Your task to perform on an android device: open a new tab in the chrome app Image 0: 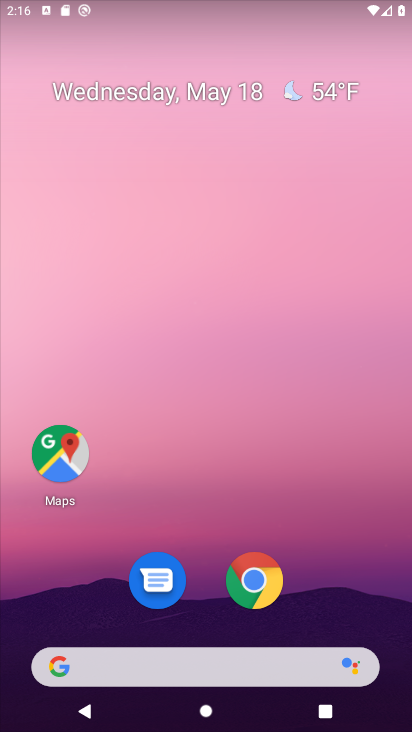
Step 0: click (219, 196)
Your task to perform on an android device: open a new tab in the chrome app Image 1: 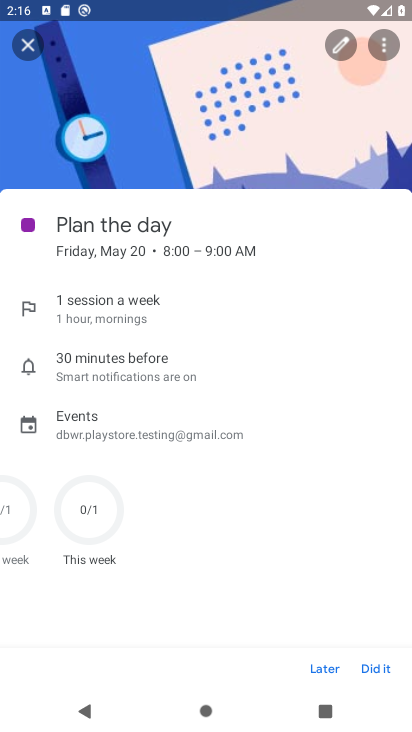
Step 1: press home button
Your task to perform on an android device: open a new tab in the chrome app Image 2: 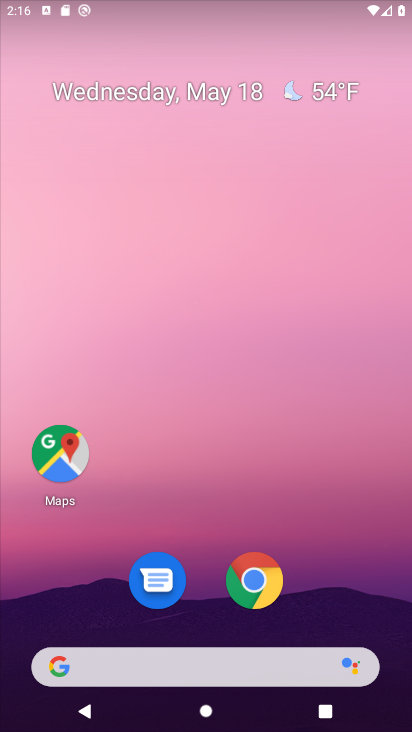
Step 2: drag from (207, 635) to (211, 51)
Your task to perform on an android device: open a new tab in the chrome app Image 3: 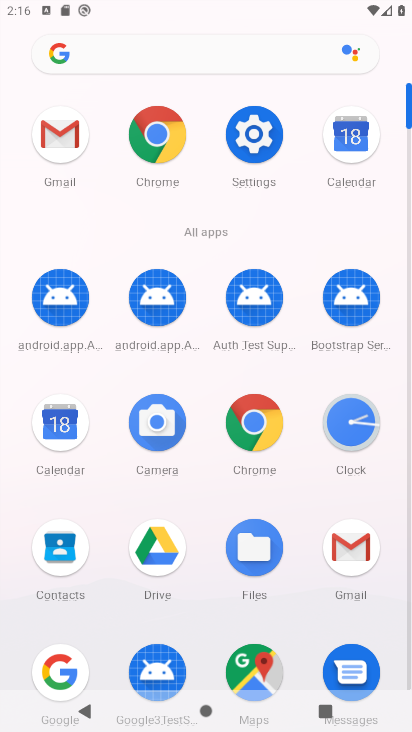
Step 3: click (261, 428)
Your task to perform on an android device: open a new tab in the chrome app Image 4: 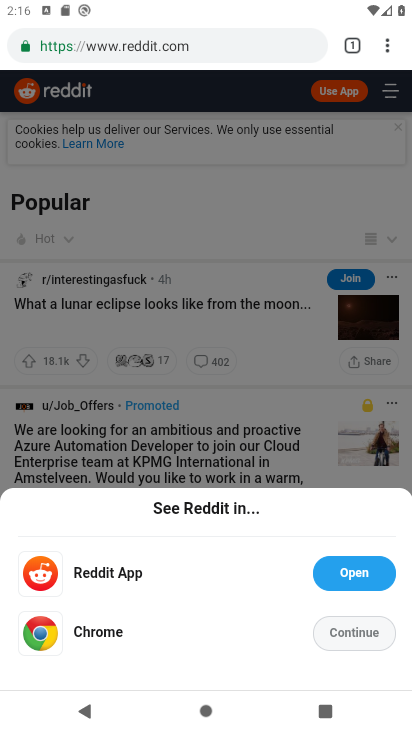
Step 4: click (353, 46)
Your task to perform on an android device: open a new tab in the chrome app Image 5: 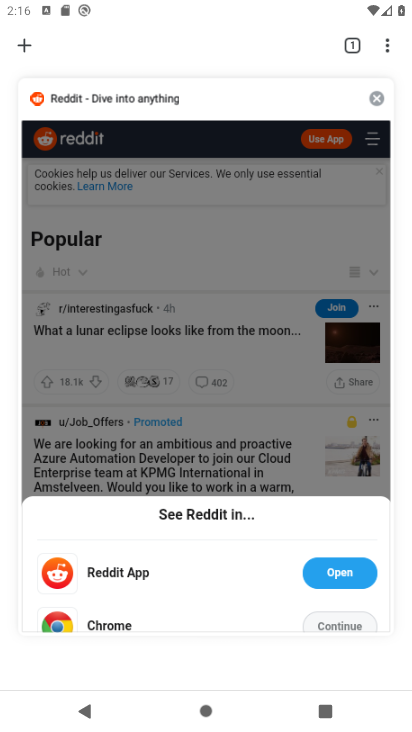
Step 5: click (23, 40)
Your task to perform on an android device: open a new tab in the chrome app Image 6: 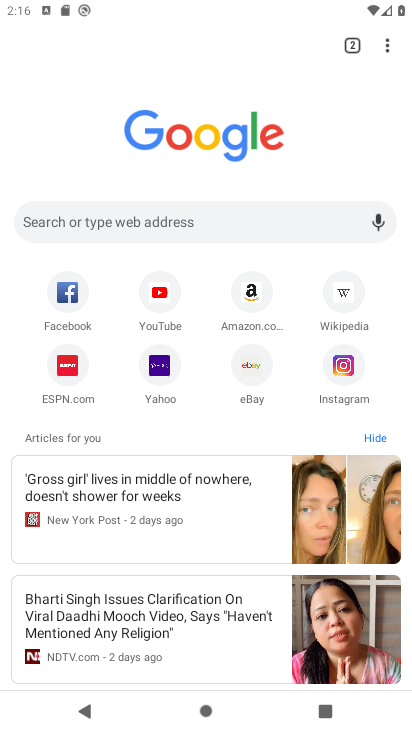
Step 6: task complete